Your task to perform on an android device: open app "Paramount+ | Peak Streaming" Image 0: 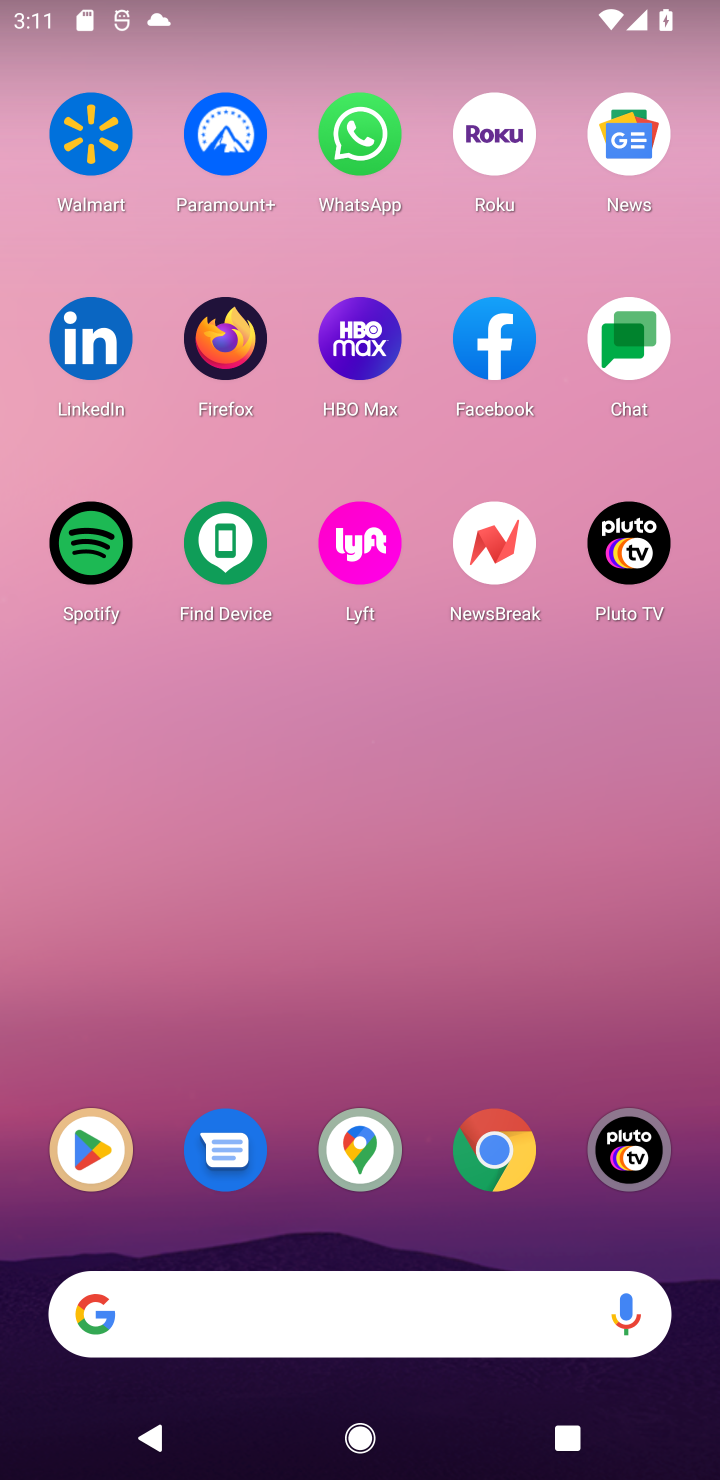
Step 0: click (225, 110)
Your task to perform on an android device: open app "Paramount+ | Peak Streaming" Image 1: 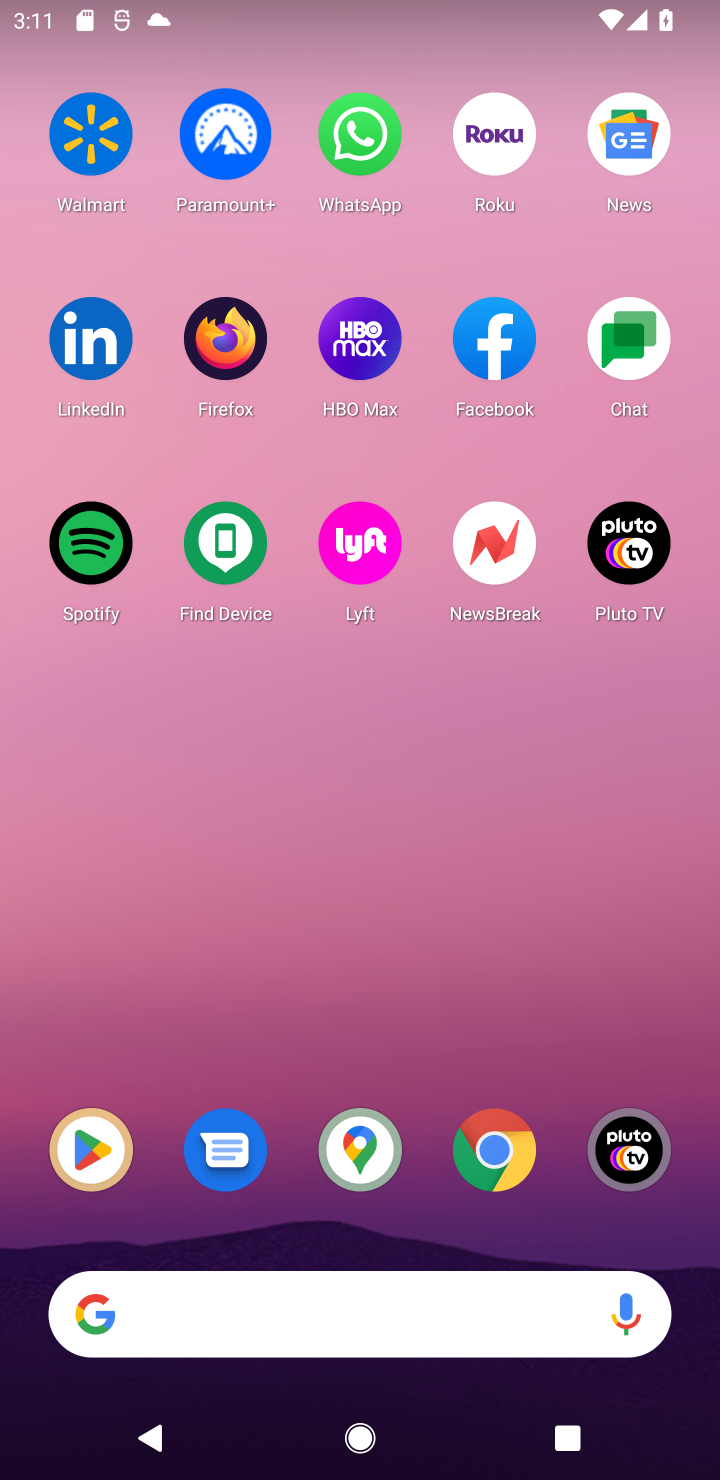
Step 1: task complete